Your task to perform on an android device: Open the stopwatch Image 0: 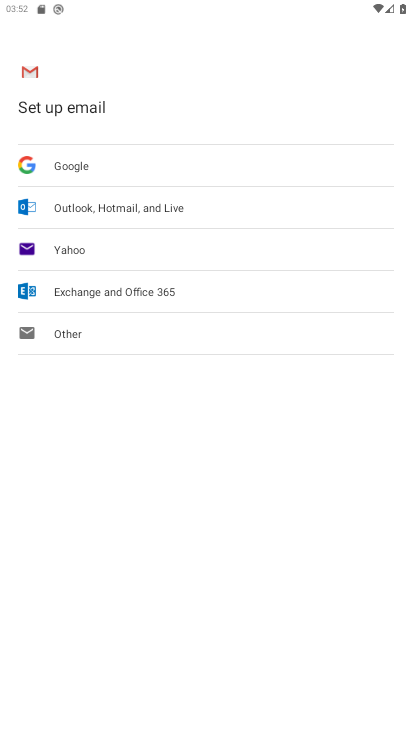
Step 0: drag from (205, 664) to (251, 440)
Your task to perform on an android device: Open the stopwatch Image 1: 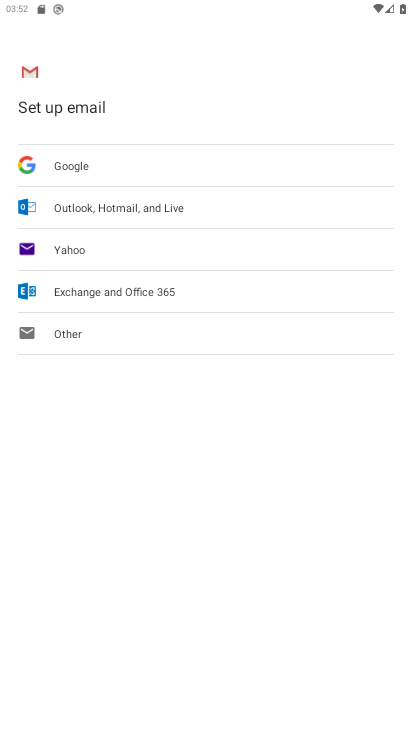
Step 1: press home button
Your task to perform on an android device: Open the stopwatch Image 2: 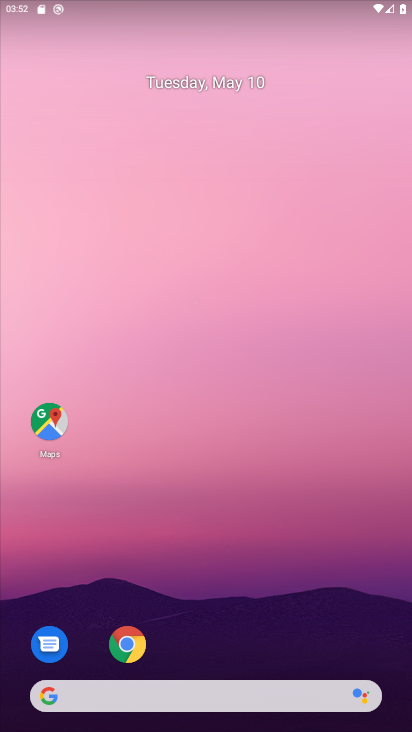
Step 2: drag from (218, 660) to (235, 73)
Your task to perform on an android device: Open the stopwatch Image 3: 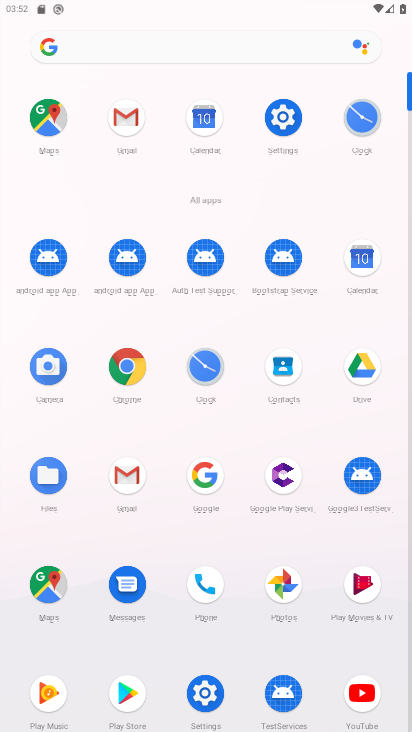
Step 3: click (205, 357)
Your task to perform on an android device: Open the stopwatch Image 4: 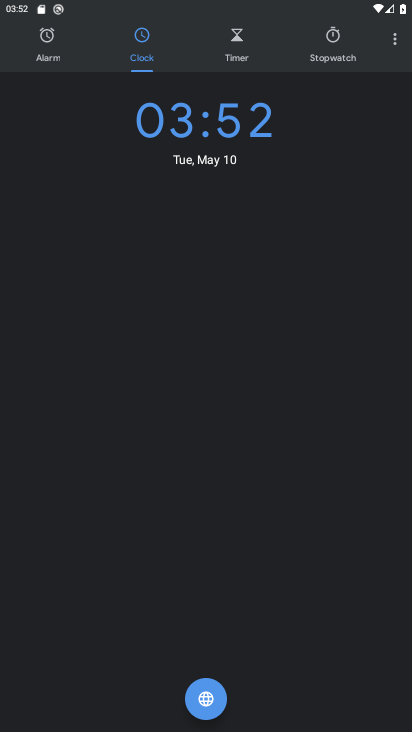
Step 4: click (329, 37)
Your task to perform on an android device: Open the stopwatch Image 5: 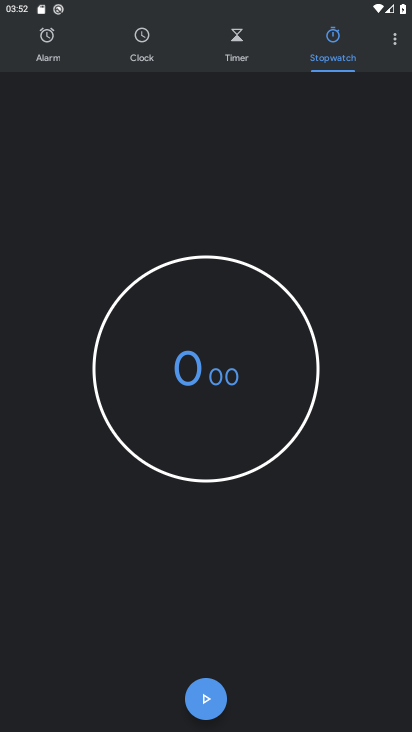
Step 5: click (203, 690)
Your task to perform on an android device: Open the stopwatch Image 6: 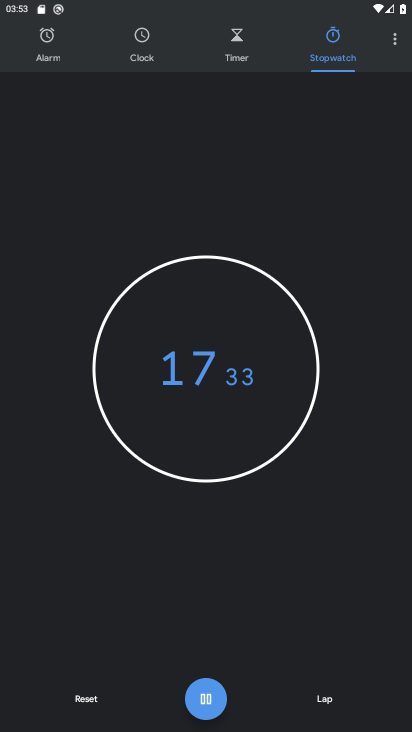
Step 6: task complete